Your task to perform on an android device: snooze an email in the gmail app Image 0: 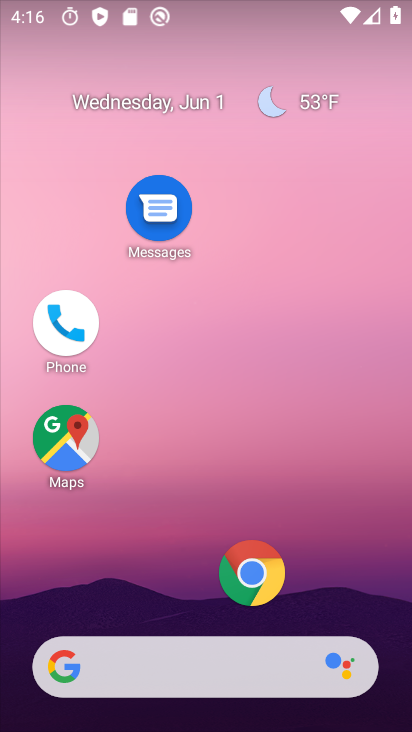
Step 0: drag from (247, 605) to (252, 46)
Your task to perform on an android device: snooze an email in the gmail app Image 1: 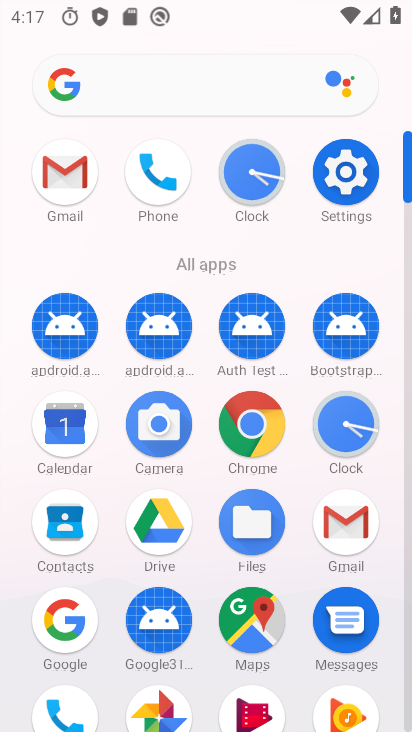
Step 1: click (40, 165)
Your task to perform on an android device: snooze an email in the gmail app Image 2: 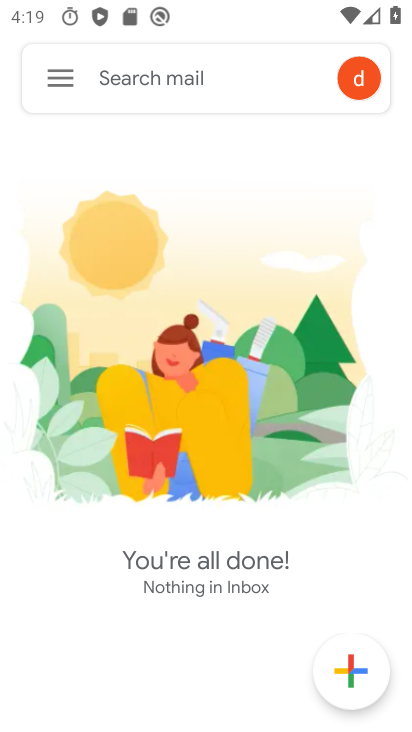
Step 2: task complete